Your task to perform on an android device: Do I have any events this weekend? Image 0: 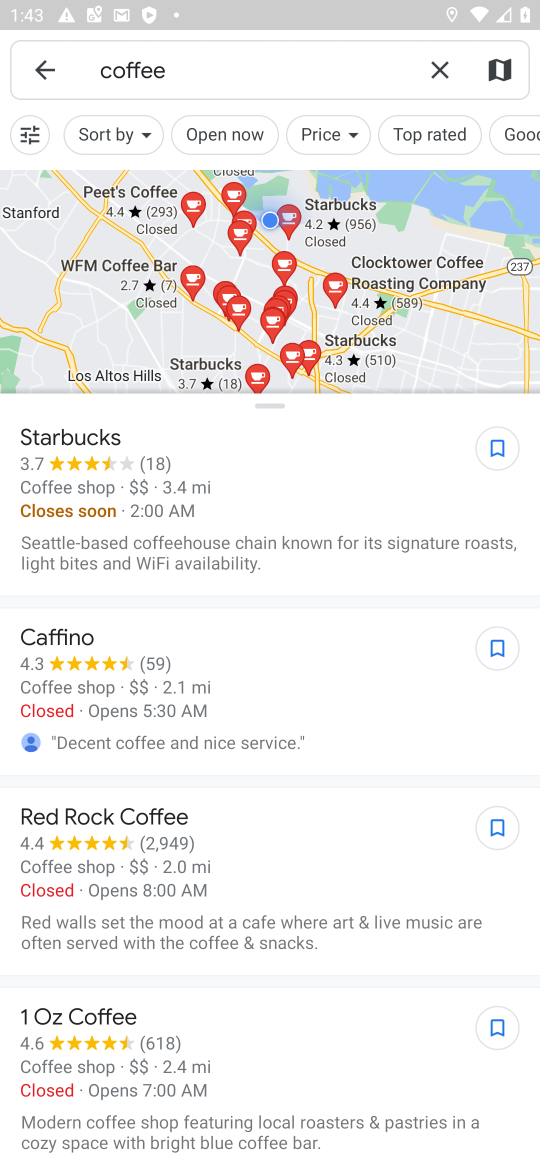
Step 0: press home button
Your task to perform on an android device: Do I have any events this weekend? Image 1: 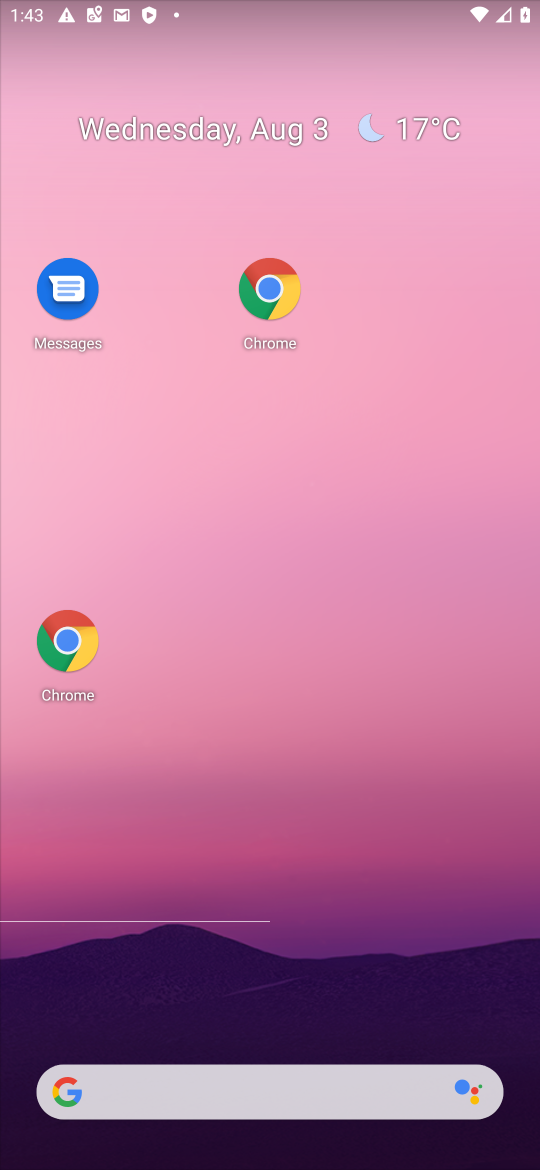
Step 1: drag from (324, 988) to (339, 220)
Your task to perform on an android device: Do I have any events this weekend? Image 2: 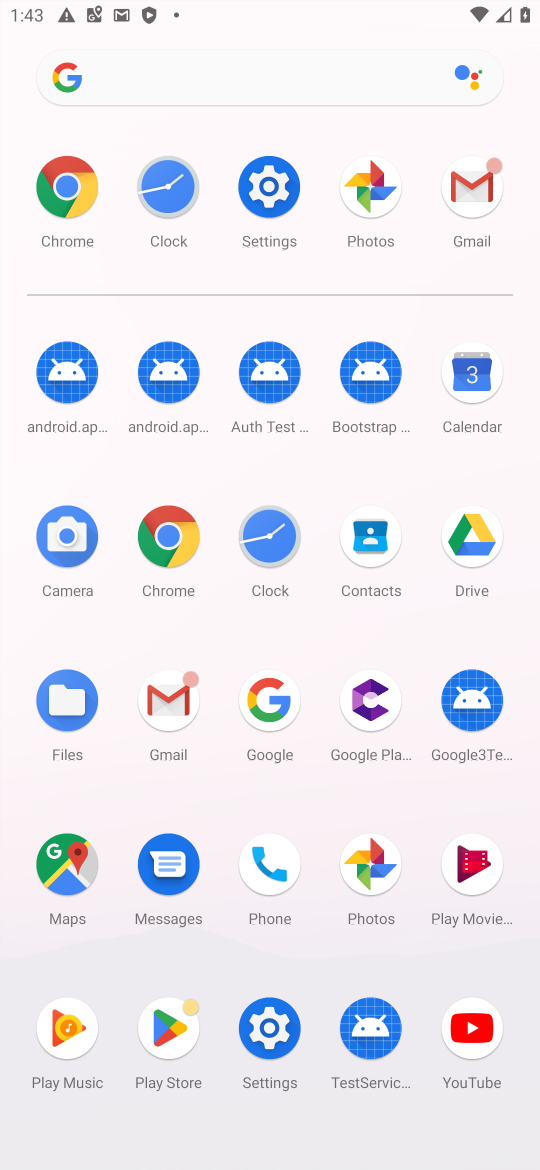
Step 2: click (478, 403)
Your task to perform on an android device: Do I have any events this weekend? Image 3: 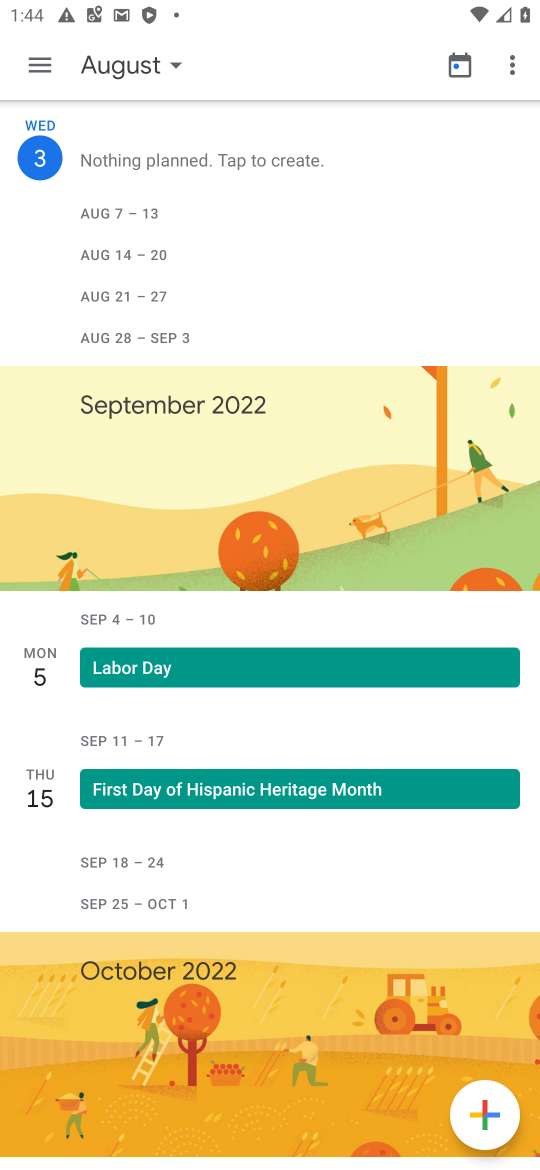
Step 3: task complete